Your task to perform on an android device: change the clock display to digital Image 0: 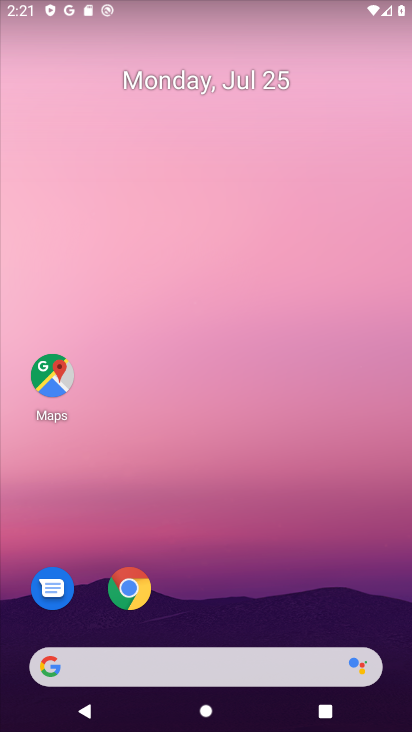
Step 0: drag from (218, 633) to (261, 15)
Your task to perform on an android device: change the clock display to digital Image 1: 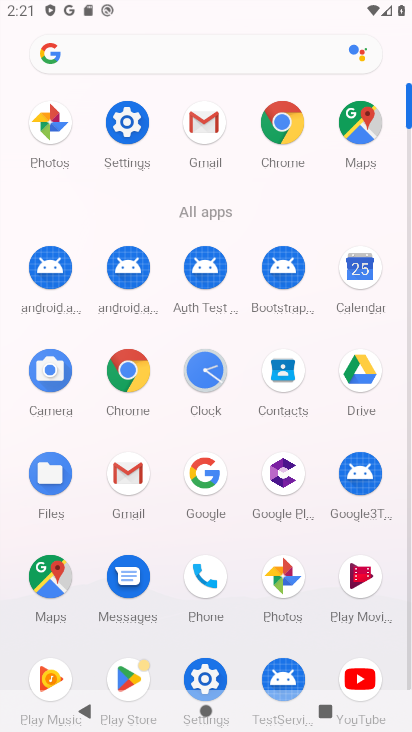
Step 1: click (203, 361)
Your task to perform on an android device: change the clock display to digital Image 2: 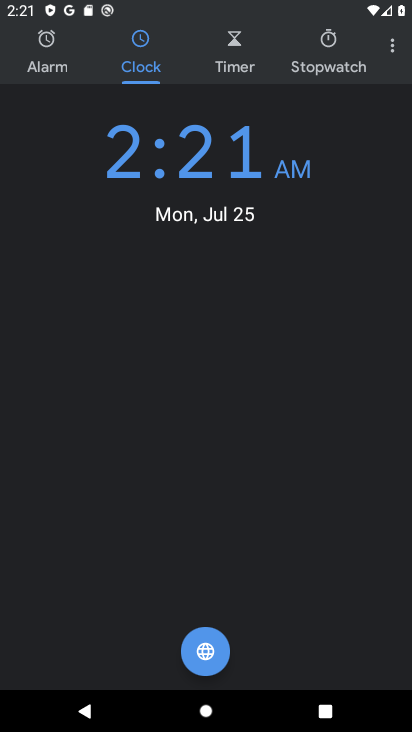
Step 2: click (387, 43)
Your task to perform on an android device: change the clock display to digital Image 3: 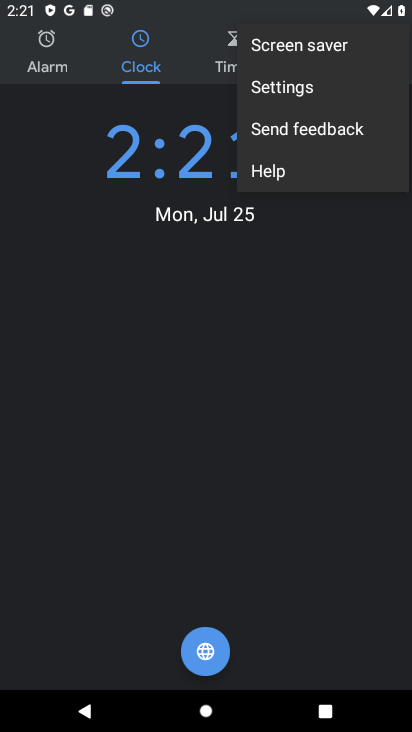
Step 3: click (295, 86)
Your task to perform on an android device: change the clock display to digital Image 4: 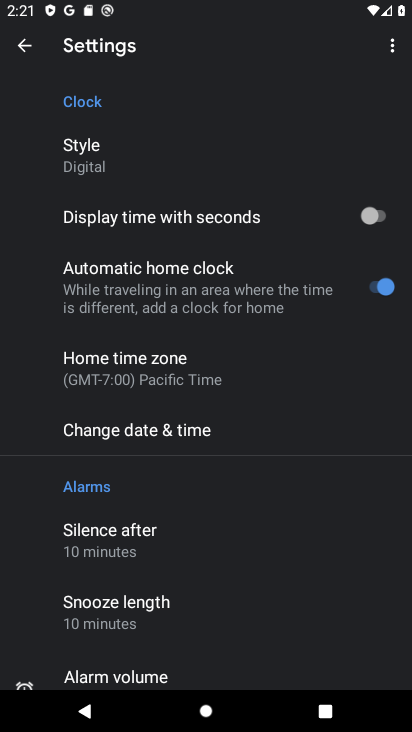
Step 4: click (177, 142)
Your task to perform on an android device: change the clock display to digital Image 5: 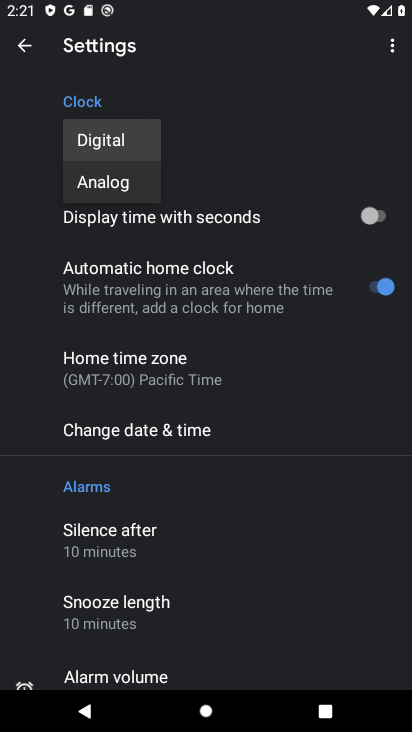
Step 5: click (133, 132)
Your task to perform on an android device: change the clock display to digital Image 6: 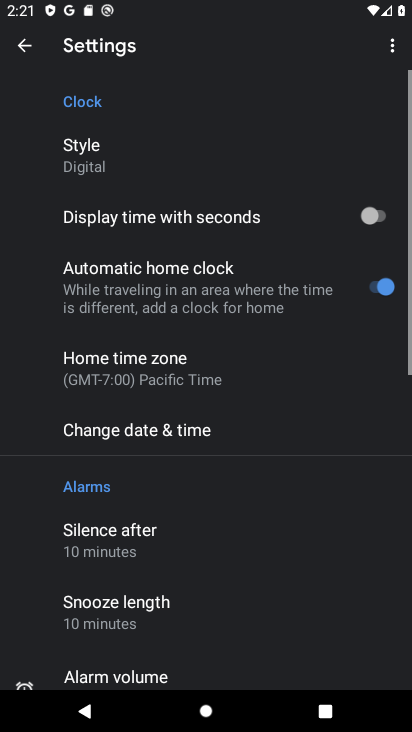
Step 6: task complete